Your task to perform on an android device: Search for pizza restaurants on Maps Image 0: 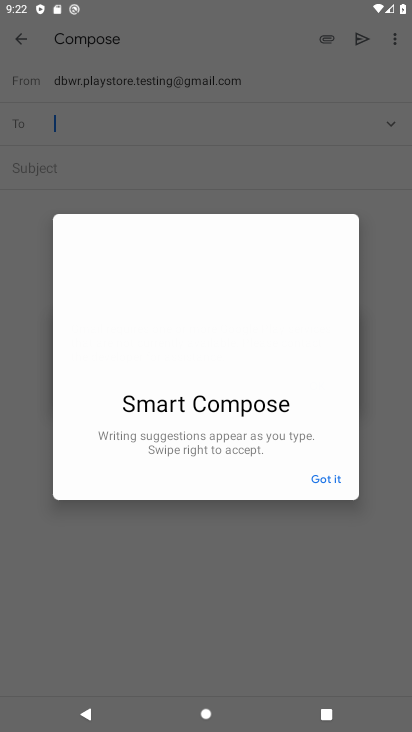
Step 0: press home button
Your task to perform on an android device: Search for pizza restaurants on Maps Image 1: 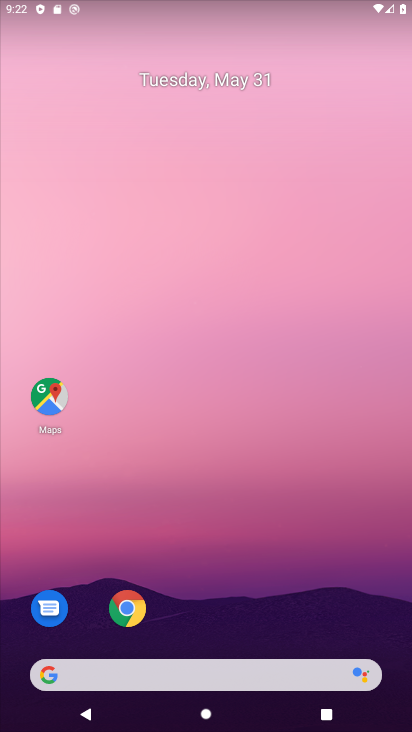
Step 1: click (53, 402)
Your task to perform on an android device: Search for pizza restaurants on Maps Image 2: 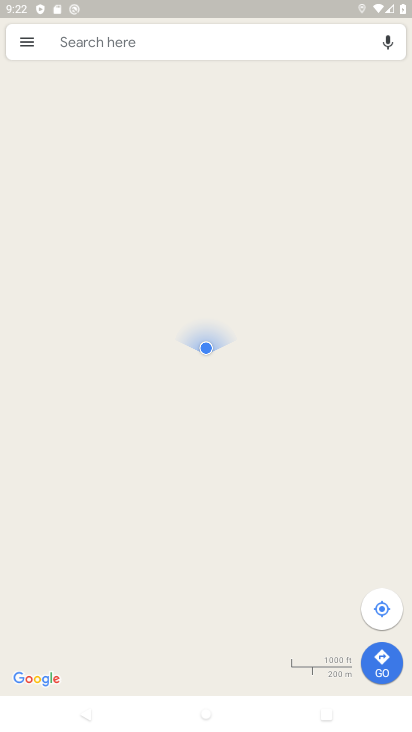
Step 2: click (160, 34)
Your task to perform on an android device: Search for pizza restaurants on Maps Image 3: 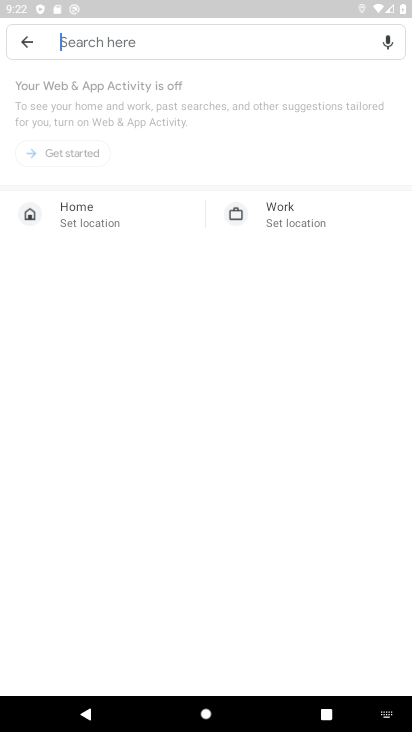
Step 3: type "pizza"
Your task to perform on an android device: Search for pizza restaurants on Maps Image 4: 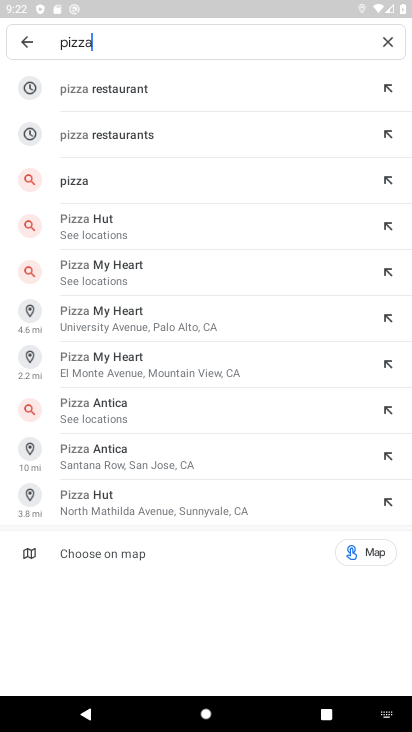
Step 4: click (183, 96)
Your task to perform on an android device: Search for pizza restaurants on Maps Image 5: 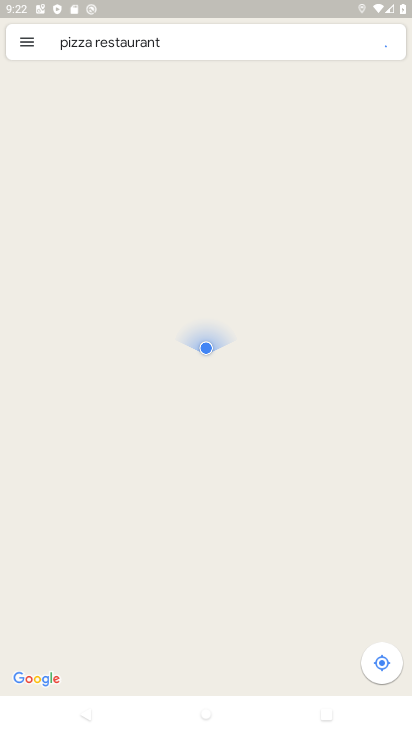
Step 5: task complete